Your task to perform on an android device: delete a single message in the gmail app Image 0: 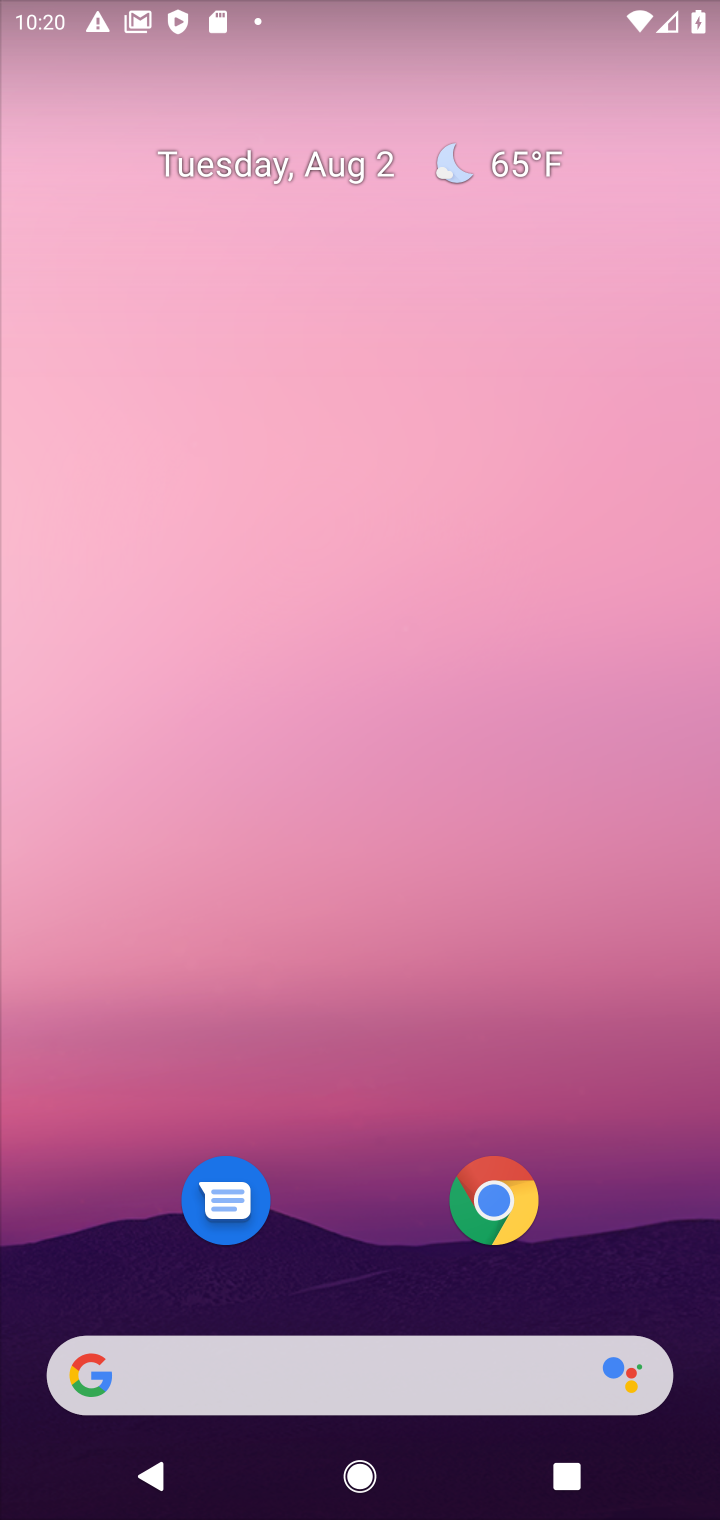
Step 0: drag from (670, 1278) to (687, 103)
Your task to perform on an android device: delete a single message in the gmail app Image 1: 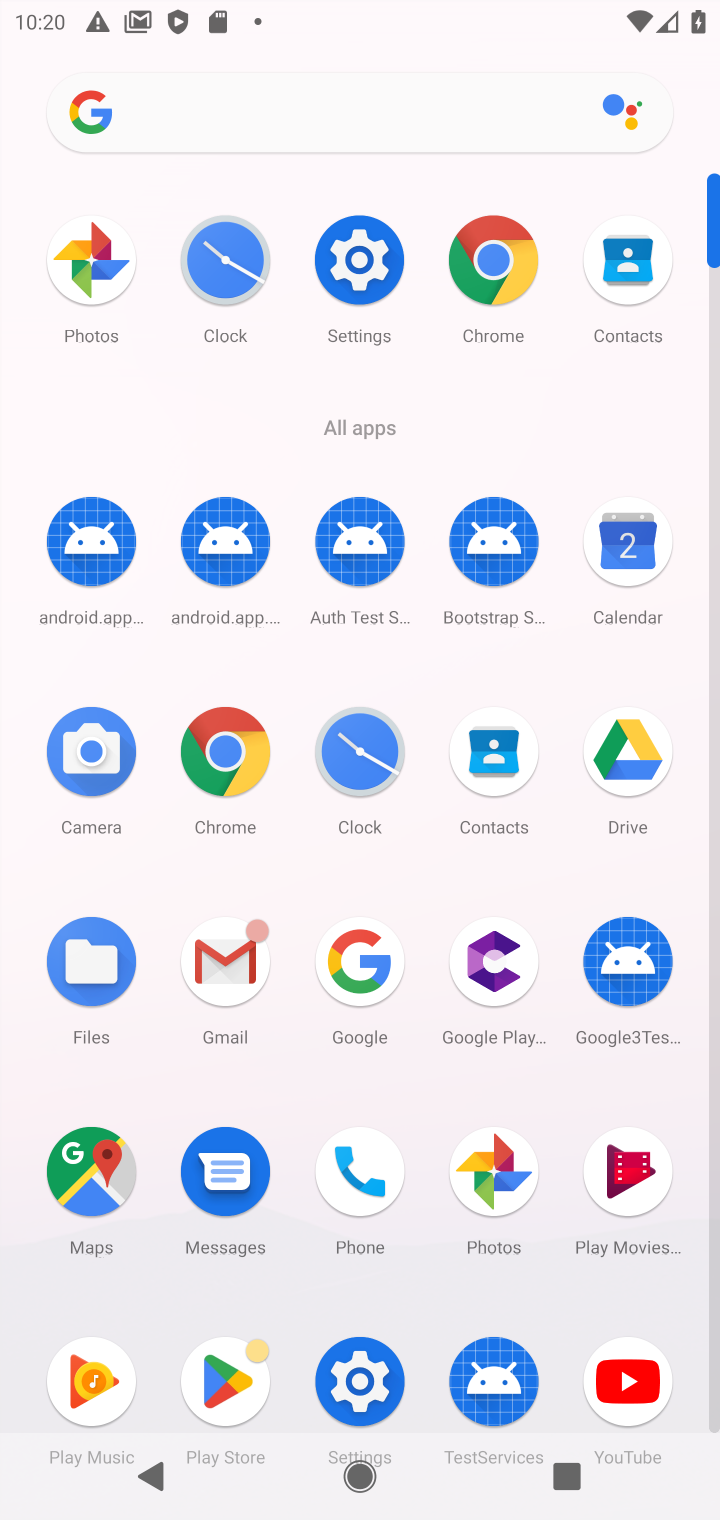
Step 1: click (219, 969)
Your task to perform on an android device: delete a single message in the gmail app Image 2: 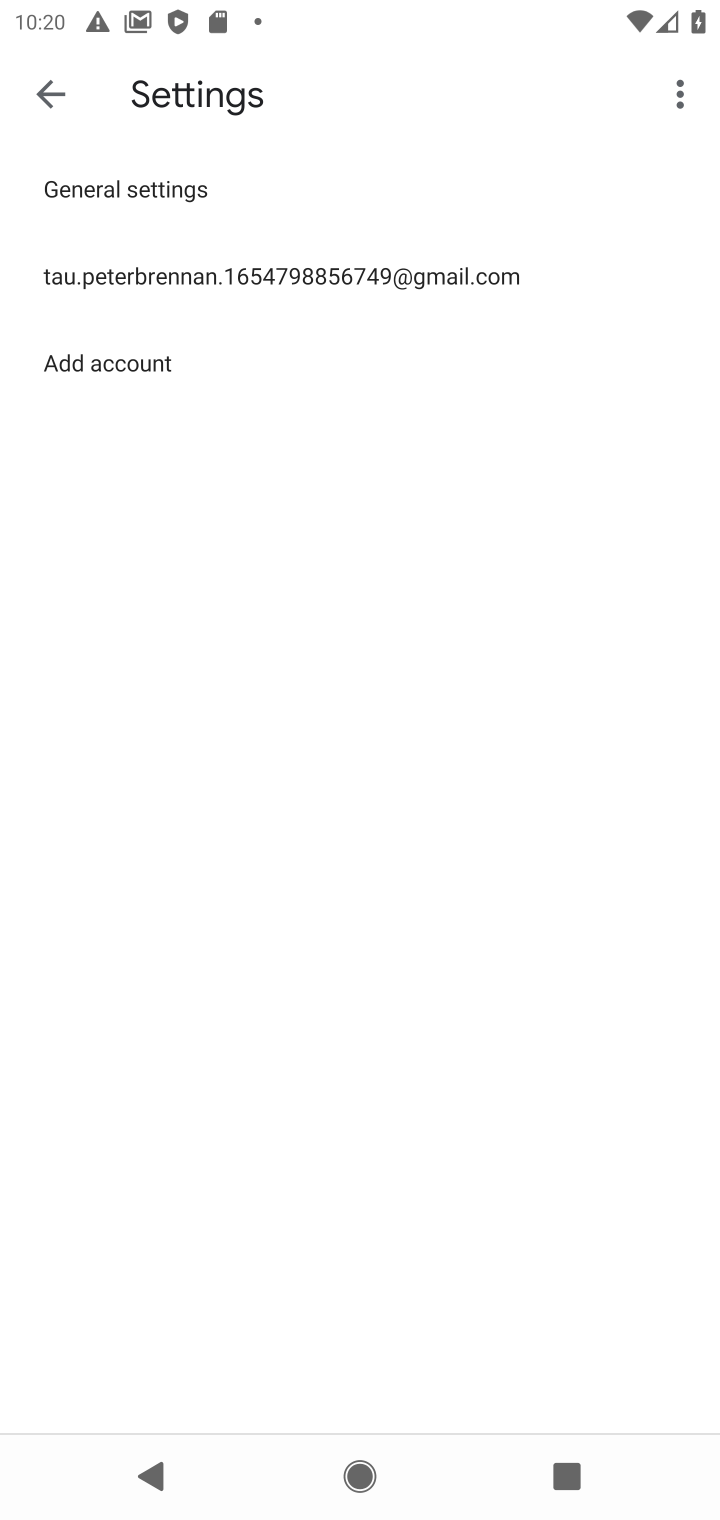
Step 2: press back button
Your task to perform on an android device: delete a single message in the gmail app Image 3: 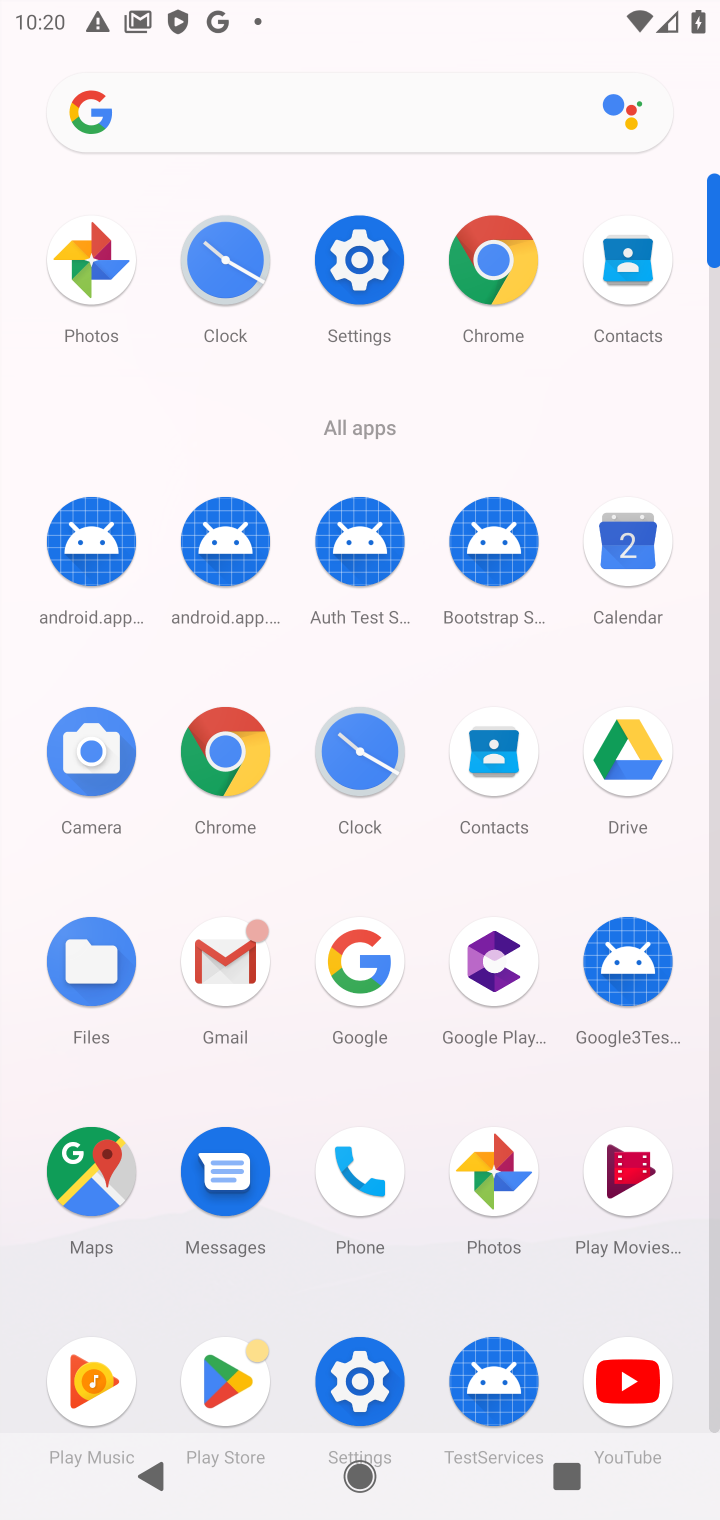
Step 3: click (220, 960)
Your task to perform on an android device: delete a single message in the gmail app Image 4: 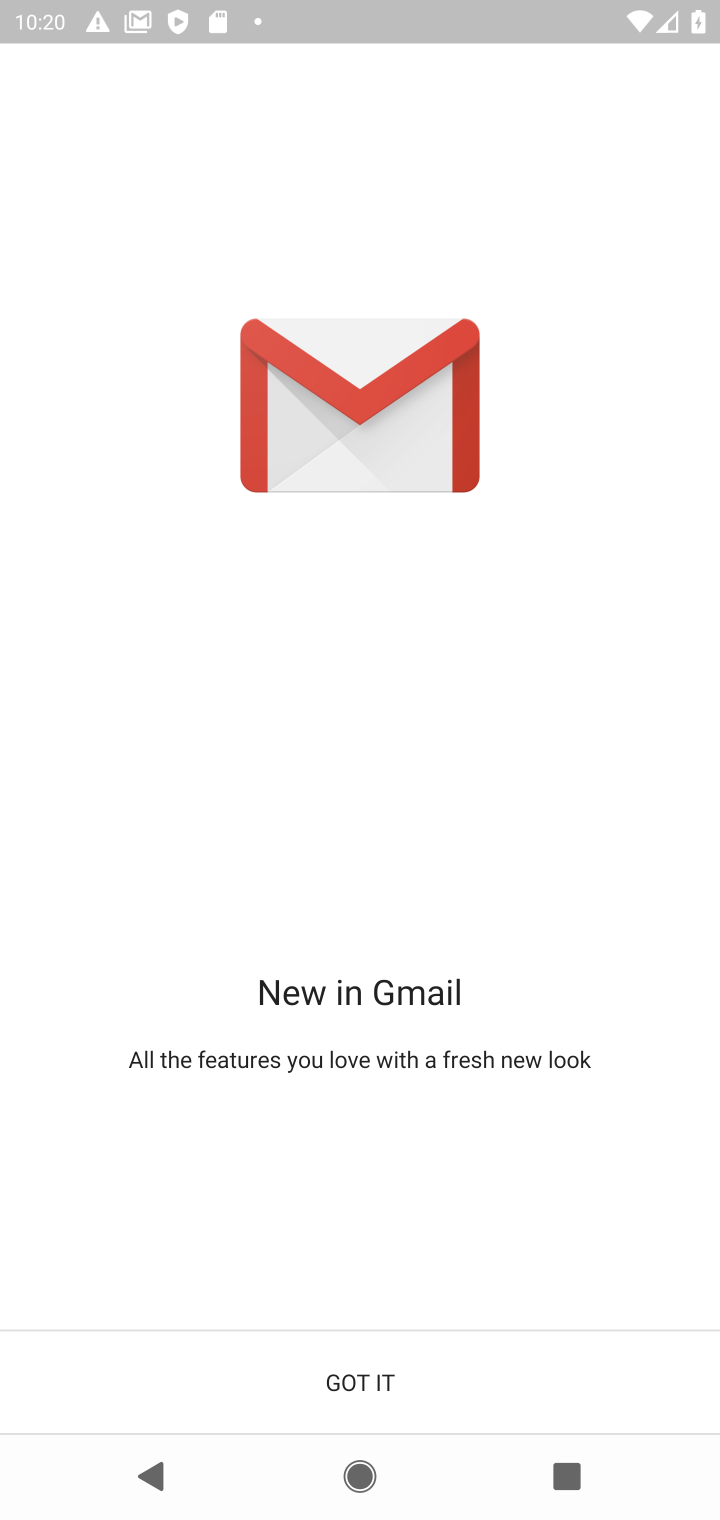
Step 4: click (348, 1375)
Your task to perform on an android device: delete a single message in the gmail app Image 5: 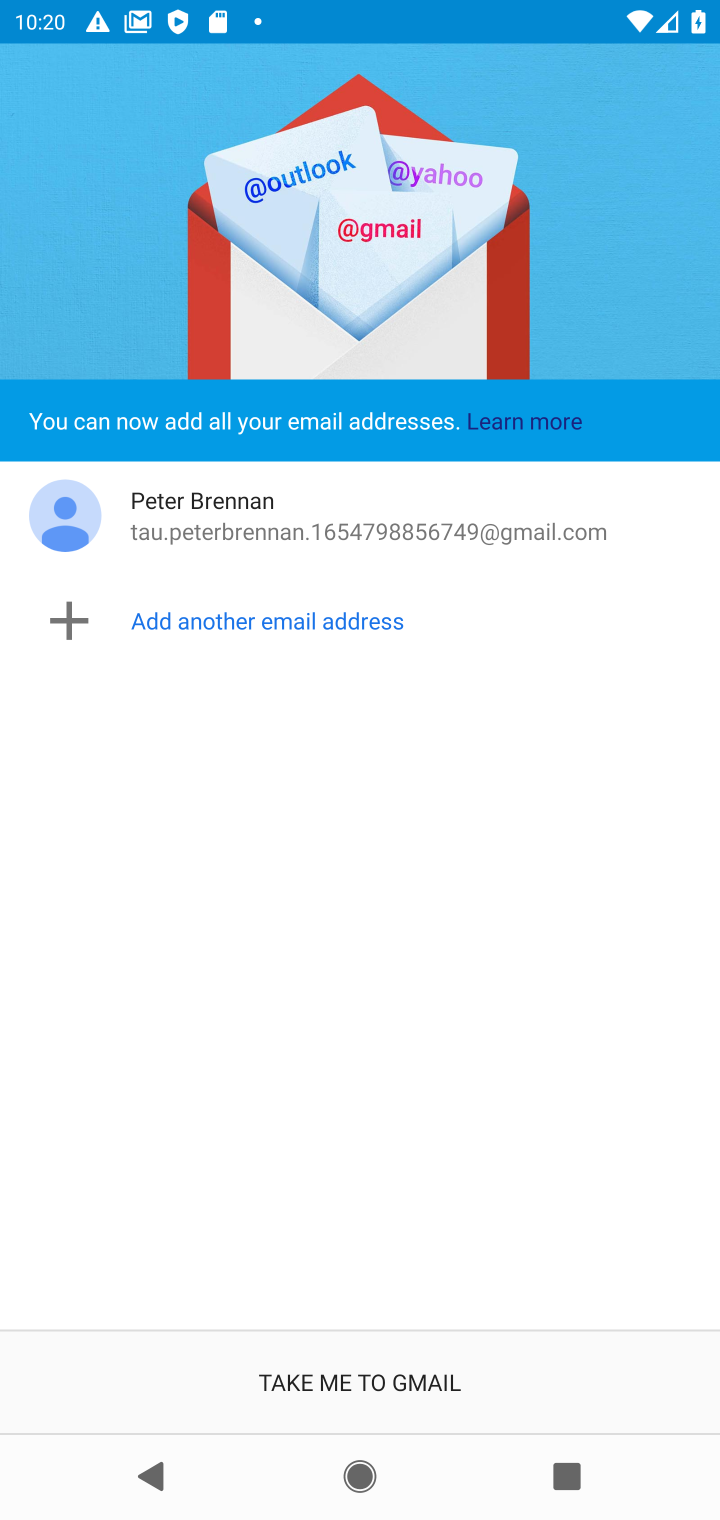
Step 5: click (378, 1373)
Your task to perform on an android device: delete a single message in the gmail app Image 6: 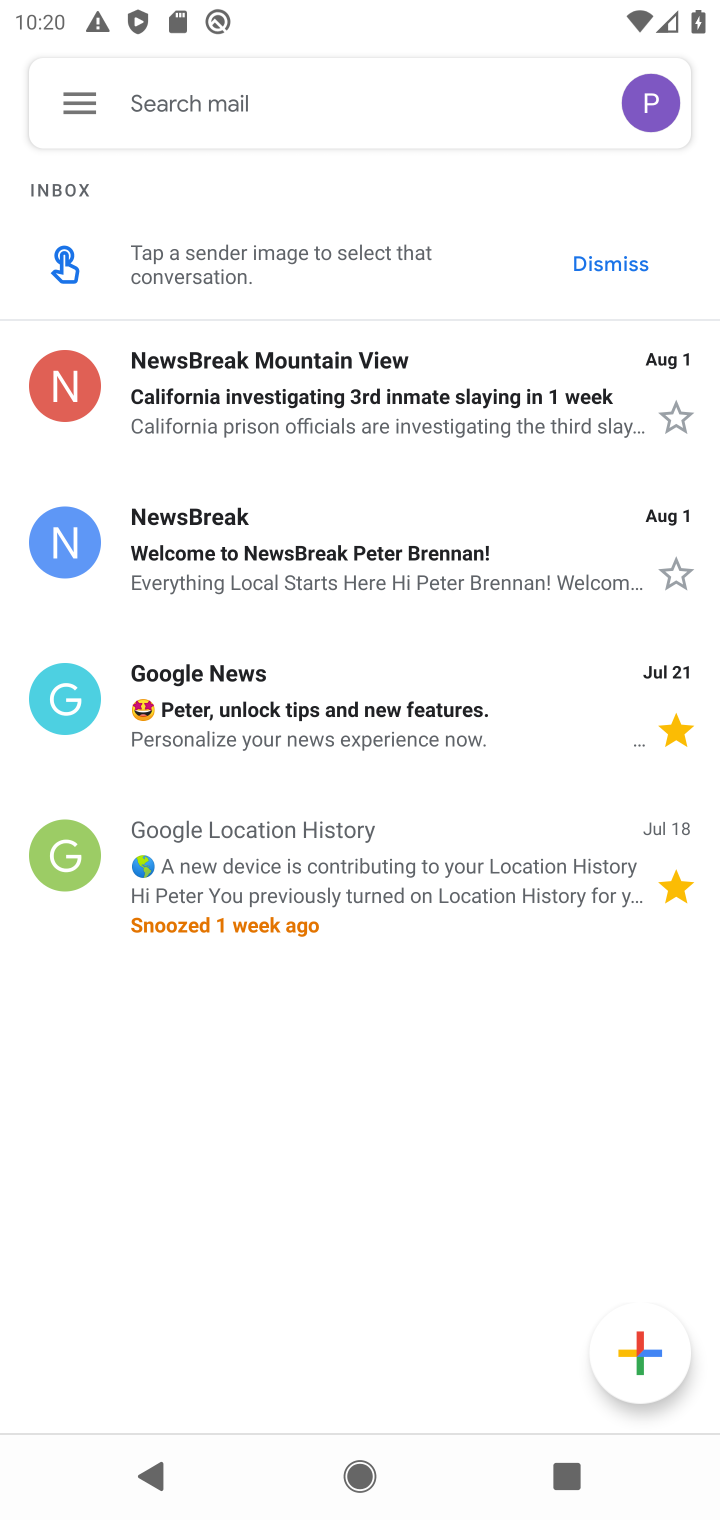
Step 6: click (330, 868)
Your task to perform on an android device: delete a single message in the gmail app Image 7: 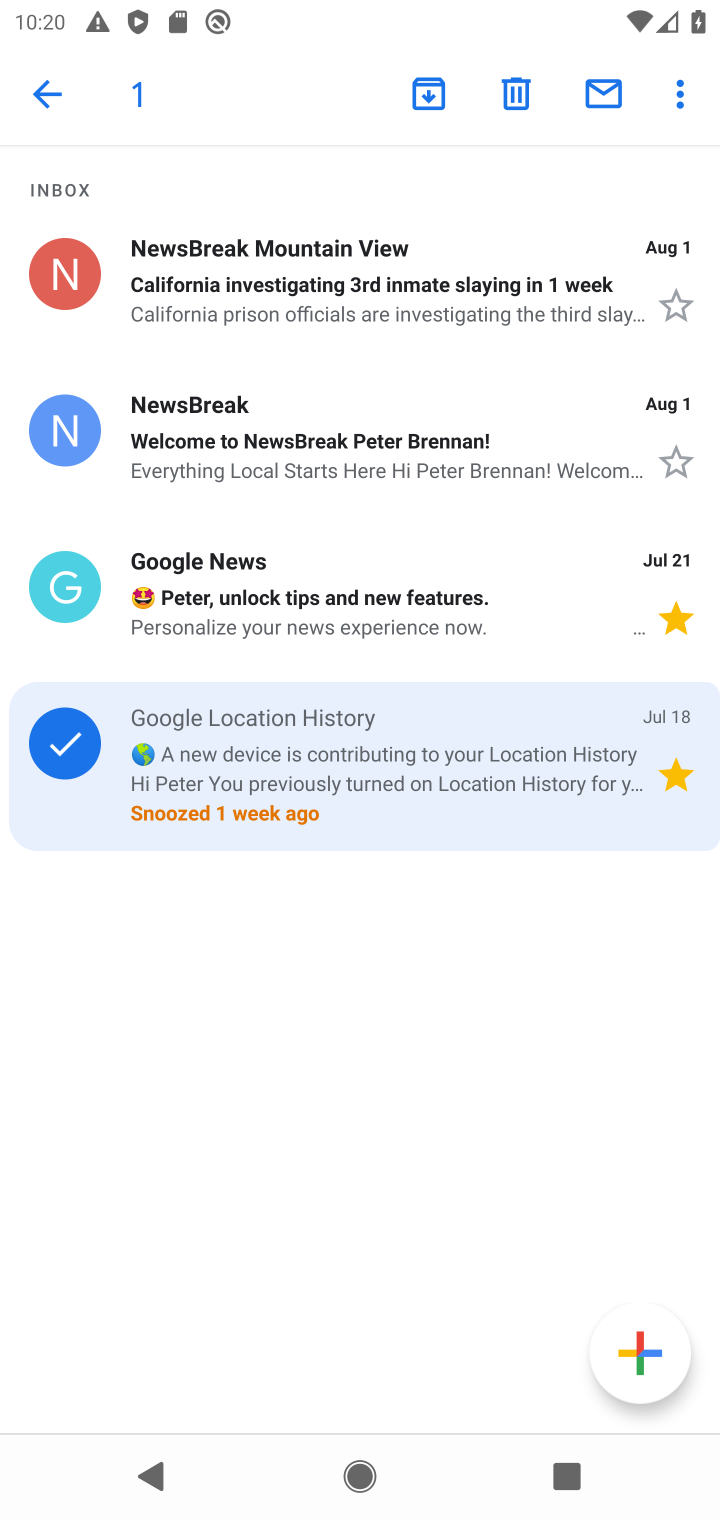
Step 7: click (514, 91)
Your task to perform on an android device: delete a single message in the gmail app Image 8: 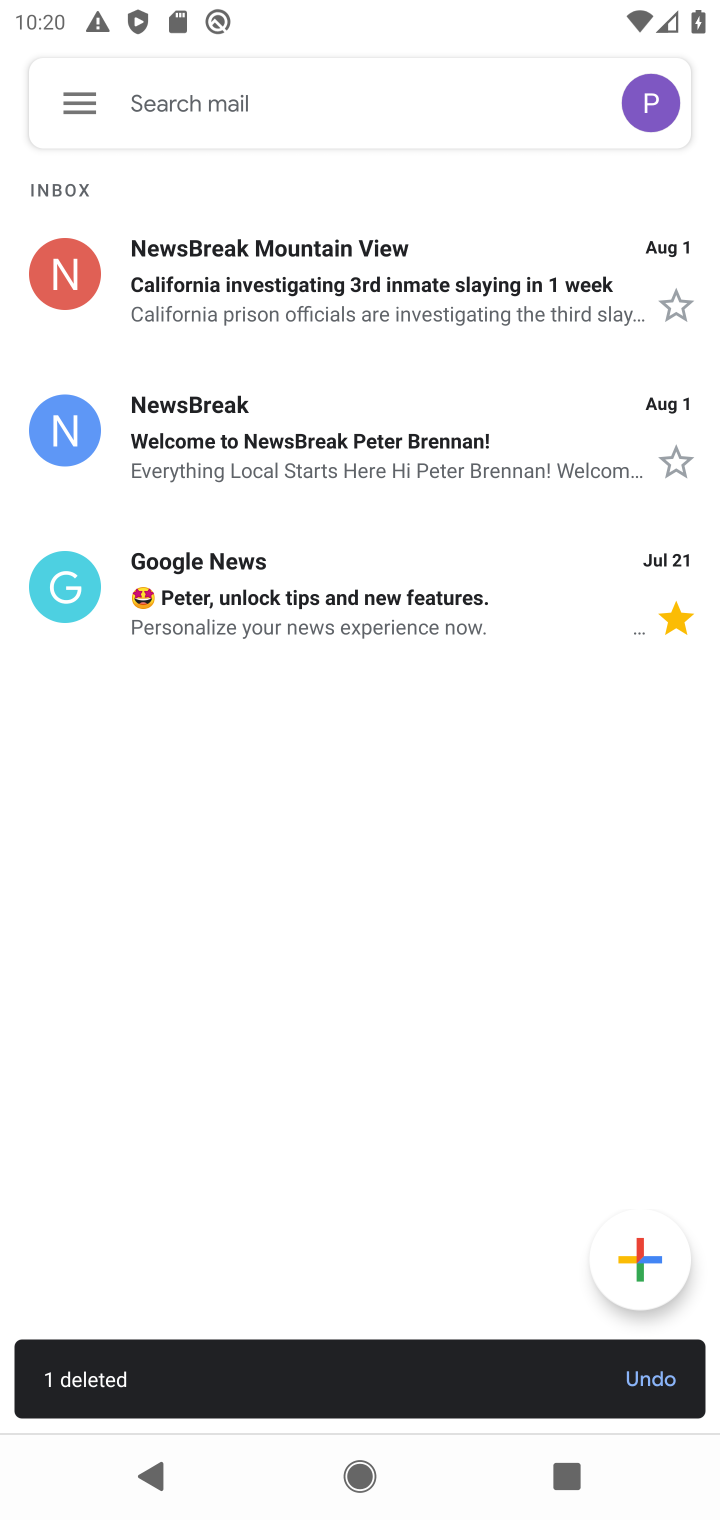
Step 8: task complete